Your task to perform on an android device: Go to calendar. Show me events next week Image 0: 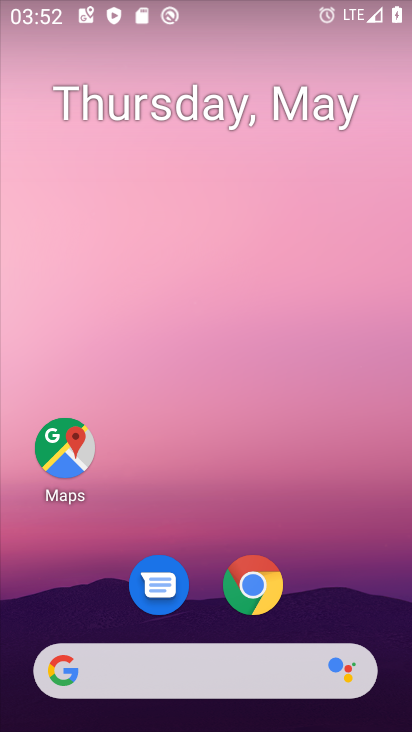
Step 0: drag from (230, 504) to (197, 50)
Your task to perform on an android device: Go to calendar. Show me events next week Image 1: 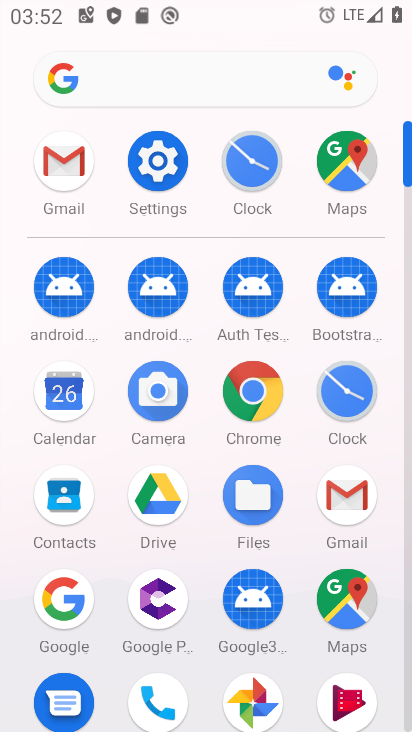
Step 1: click (60, 390)
Your task to perform on an android device: Go to calendar. Show me events next week Image 2: 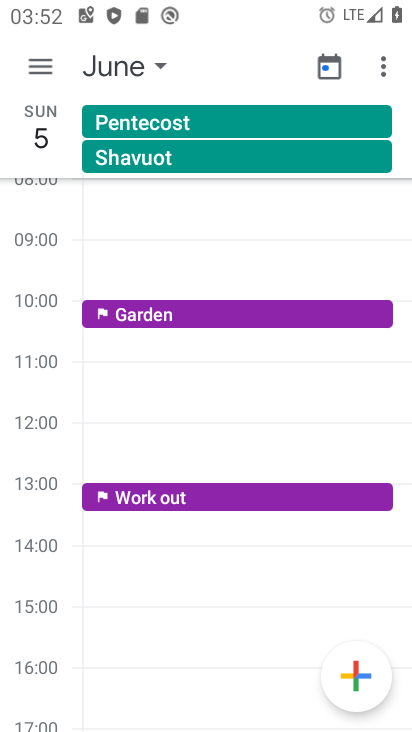
Step 2: click (44, 66)
Your task to perform on an android device: Go to calendar. Show me events next week Image 3: 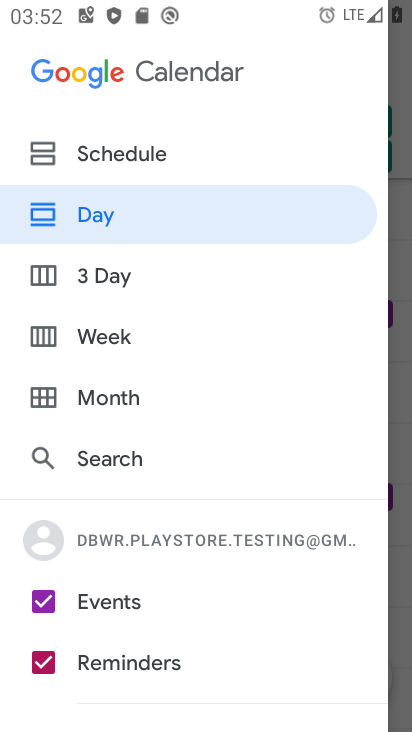
Step 3: click (49, 329)
Your task to perform on an android device: Go to calendar. Show me events next week Image 4: 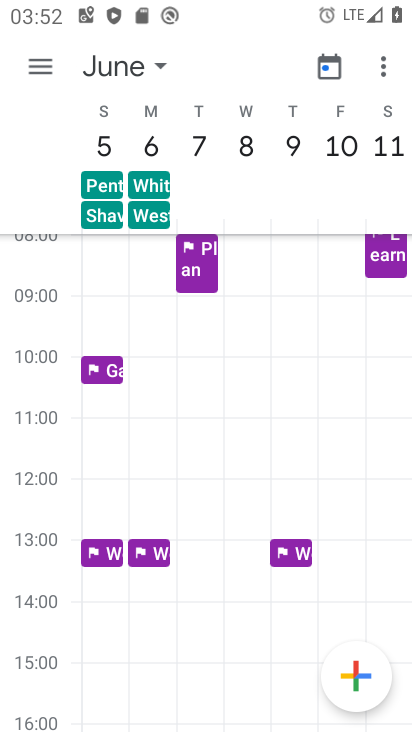
Step 4: task complete